Your task to perform on an android device: see sites visited before in the chrome app Image 0: 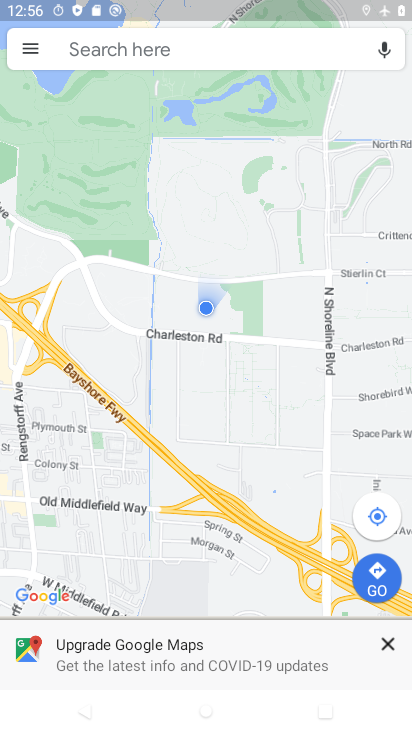
Step 0: press home button
Your task to perform on an android device: see sites visited before in the chrome app Image 1: 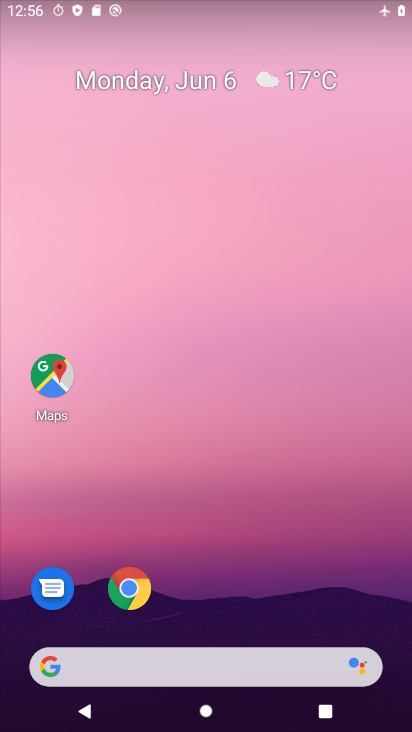
Step 1: click (129, 590)
Your task to perform on an android device: see sites visited before in the chrome app Image 2: 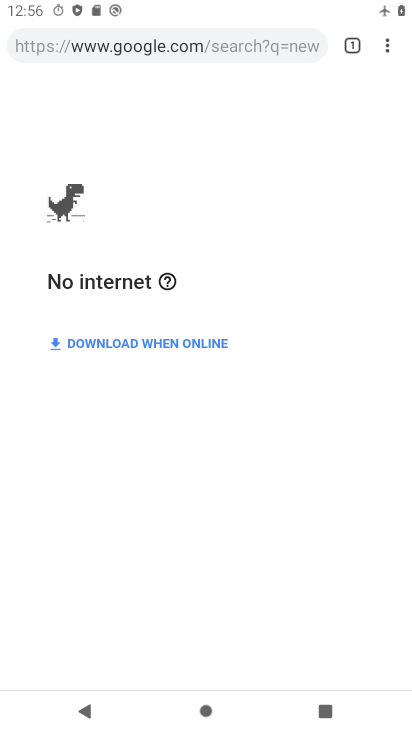
Step 2: task complete